Your task to perform on an android device: Open the web browser Image 0: 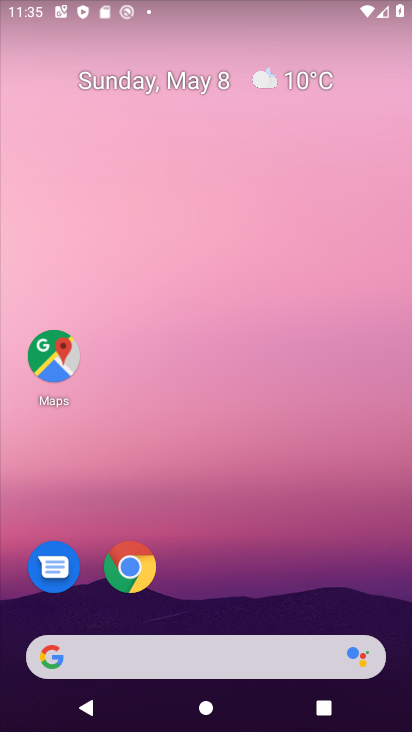
Step 0: click (133, 579)
Your task to perform on an android device: Open the web browser Image 1: 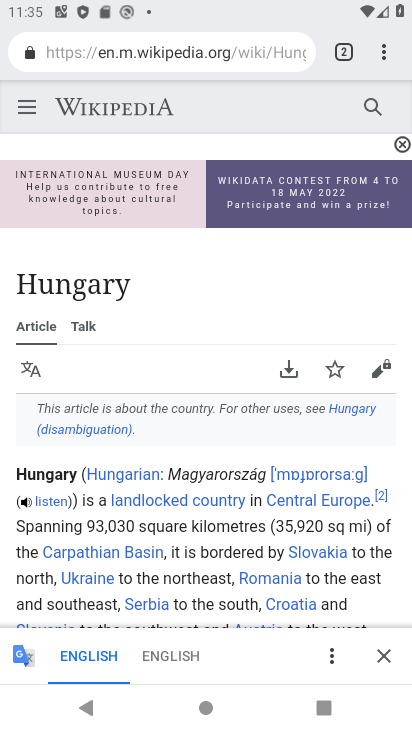
Step 1: task complete